Your task to perform on an android device: Search for Mexican restaurants on Maps Image 0: 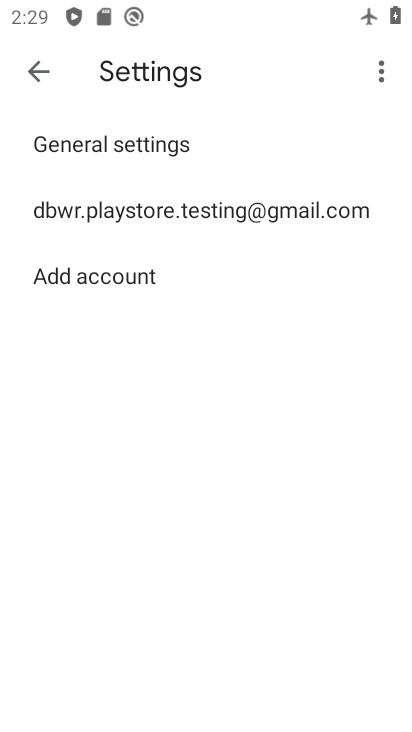
Step 0: click (158, 203)
Your task to perform on an android device: Search for Mexican restaurants on Maps Image 1: 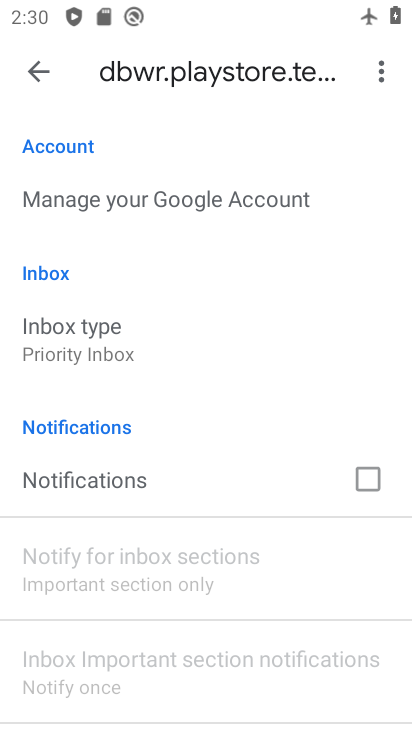
Step 1: press home button
Your task to perform on an android device: Search for Mexican restaurants on Maps Image 2: 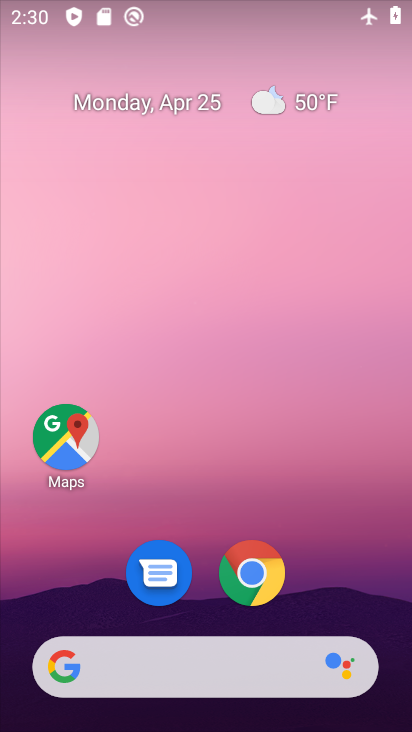
Step 2: drag from (345, 473) to (307, 8)
Your task to perform on an android device: Search for Mexican restaurants on Maps Image 3: 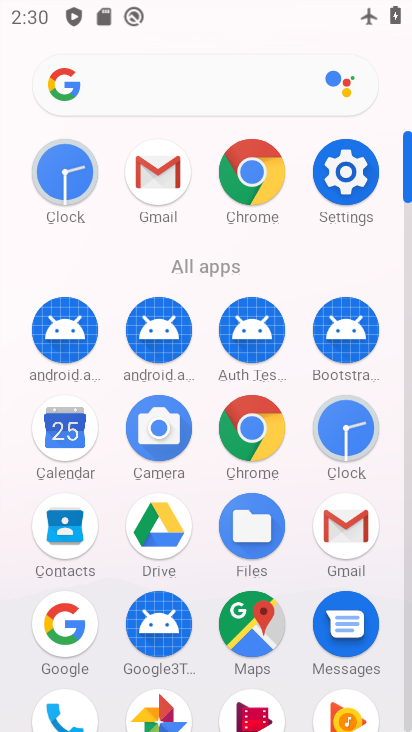
Step 3: click (226, 623)
Your task to perform on an android device: Search for Mexican restaurants on Maps Image 4: 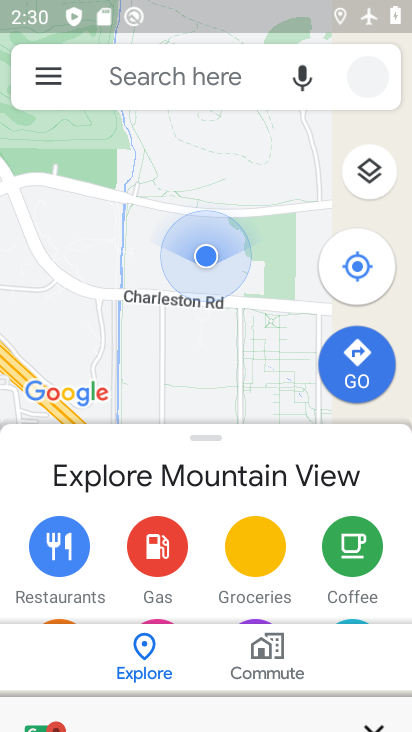
Step 4: click (181, 66)
Your task to perform on an android device: Search for Mexican restaurants on Maps Image 5: 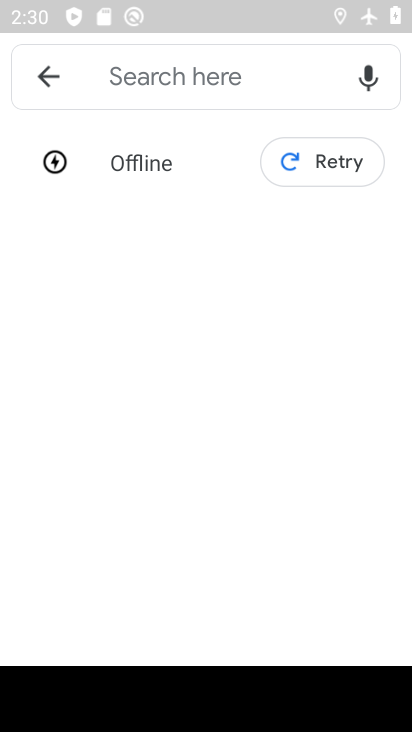
Step 5: type "mexican resturents"
Your task to perform on an android device: Search for Mexican restaurants on Maps Image 6: 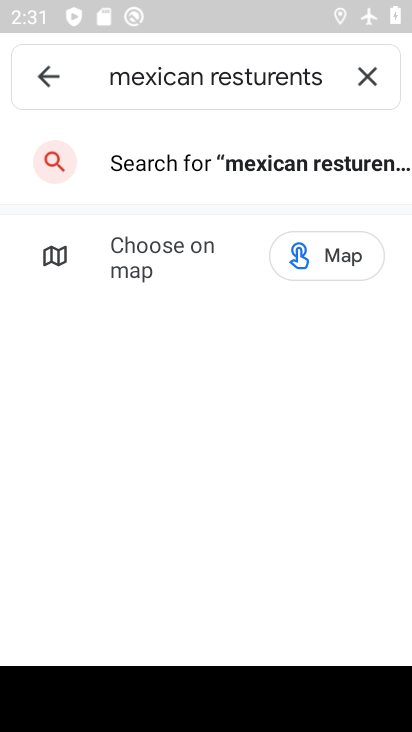
Step 6: click (238, 167)
Your task to perform on an android device: Search for Mexican restaurants on Maps Image 7: 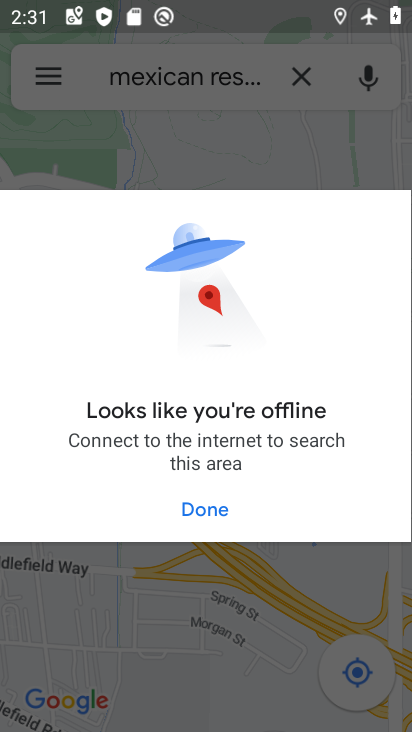
Step 7: task complete